Your task to perform on an android device: Open location settings Image 0: 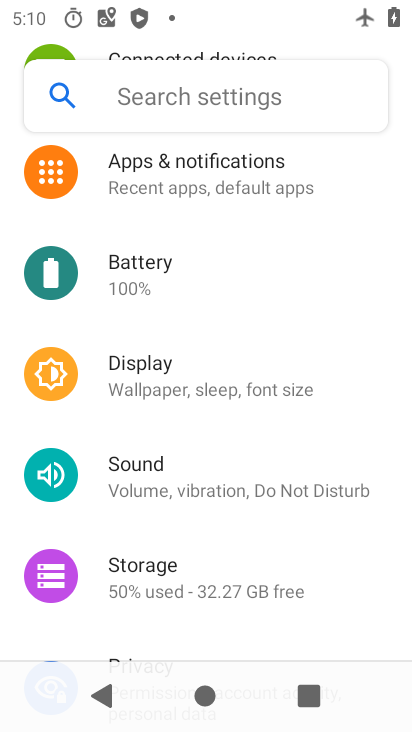
Step 0: drag from (239, 512) to (233, 80)
Your task to perform on an android device: Open location settings Image 1: 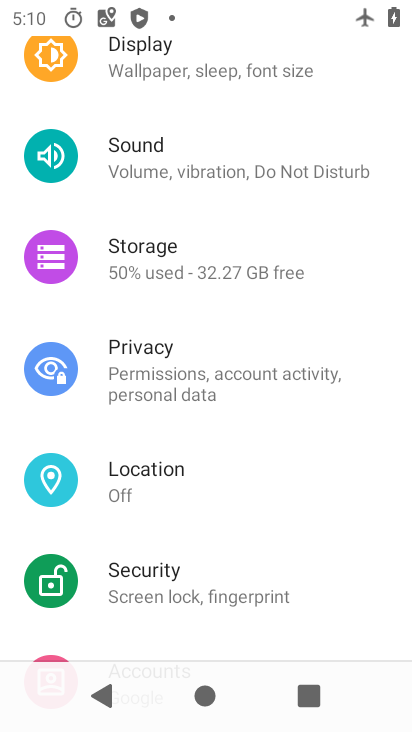
Step 1: click (150, 470)
Your task to perform on an android device: Open location settings Image 2: 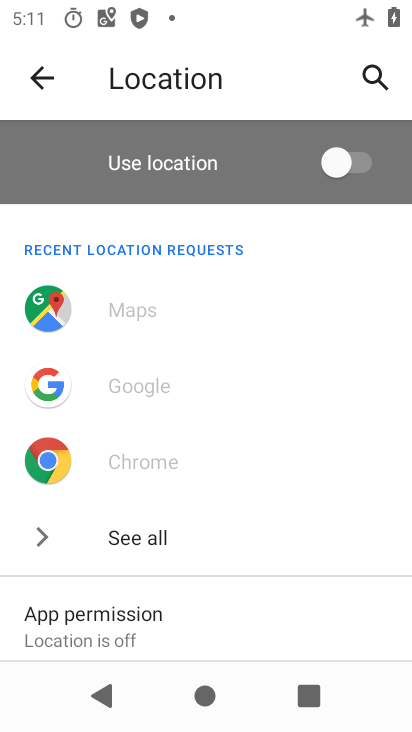
Step 2: task complete